Your task to perform on an android device: toggle airplane mode Image 0: 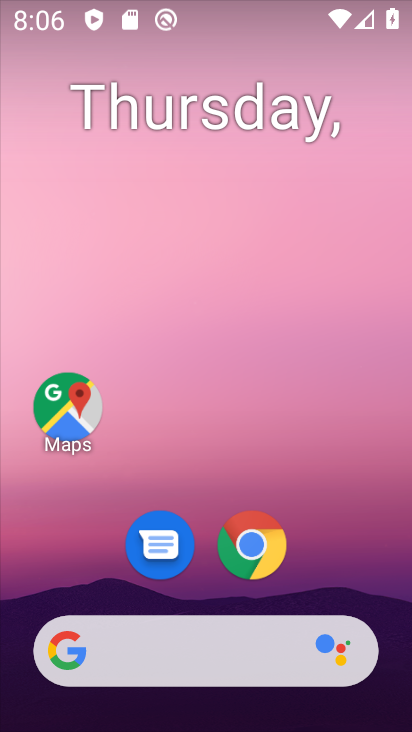
Step 0: drag from (203, 552) to (236, 185)
Your task to perform on an android device: toggle airplane mode Image 1: 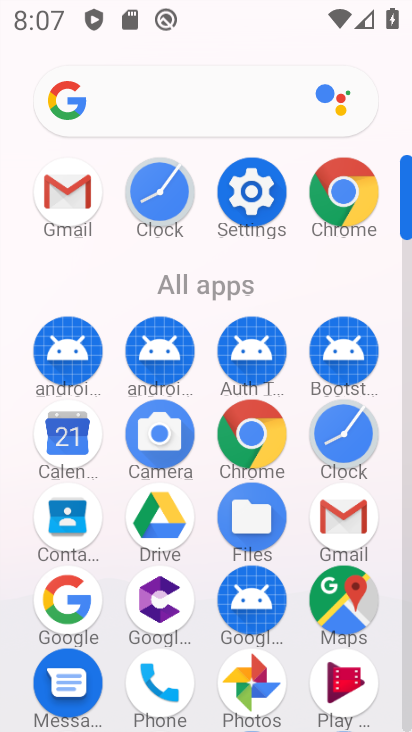
Step 1: click (245, 198)
Your task to perform on an android device: toggle airplane mode Image 2: 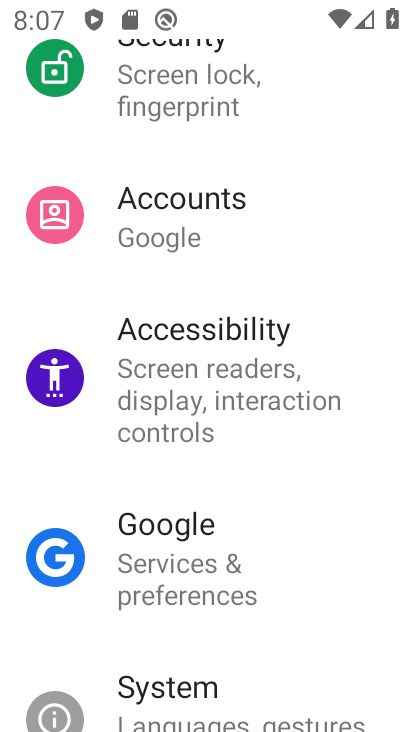
Step 2: drag from (155, 116) to (173, 679)
Your task to perform on an android device: toggle airplane mode Image 3: 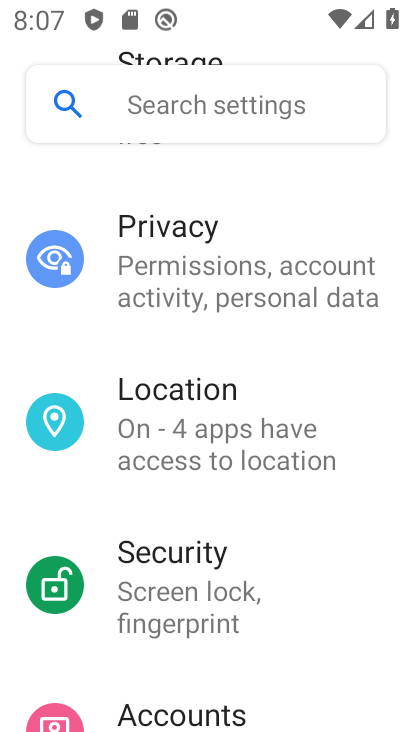
Step 3: drag from (246, 221) to (224, 713)
Your task to perform on an android device: toggle airplane mode Image 4: 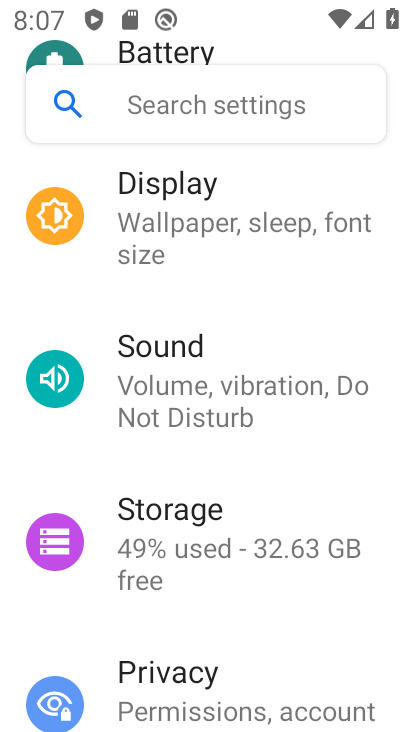
Step 4: drag from (204, 220) to (193, 702)
Your task to perform on an android device: toggle airplane mode Image 5: 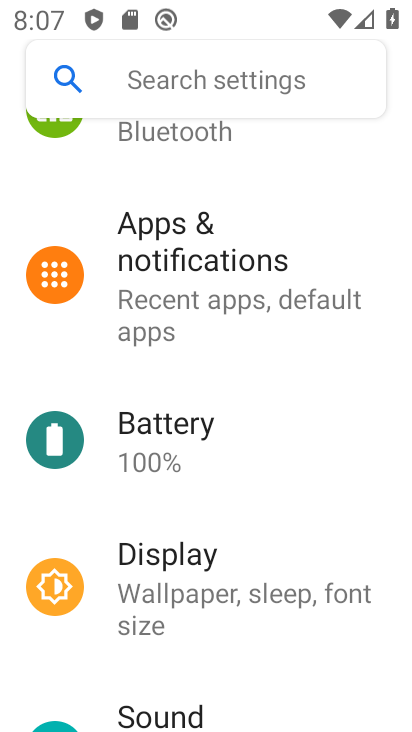
Step 5: drag from (233, 220) to (211, 424)
Your task to perform on an android device: toggle airplane mode Image 6: 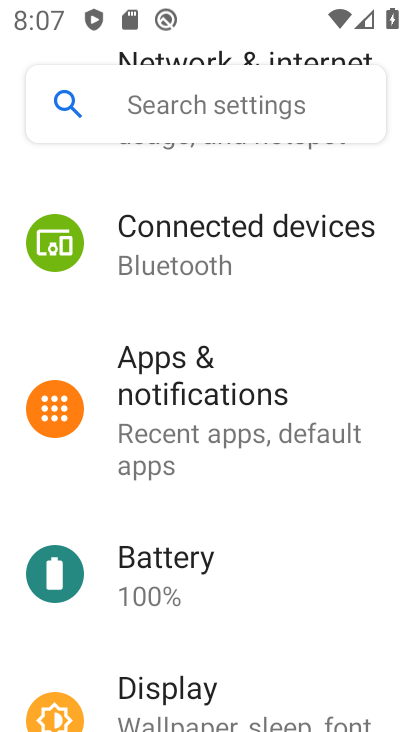
Step 6: drag from (211, 435) to (220, 620)
Your task to perform on an android device: toggle airplane mode Image 7: 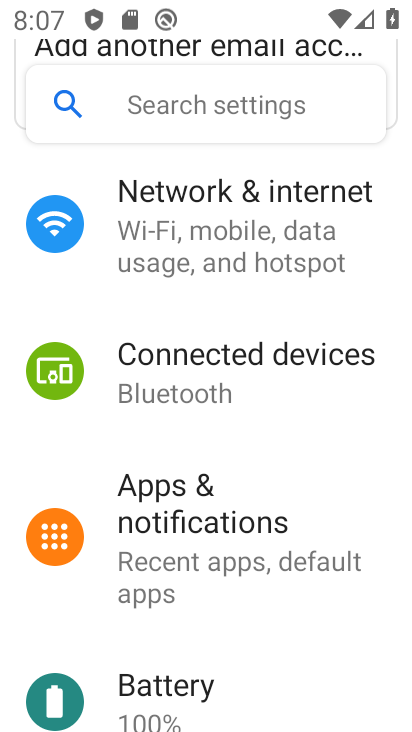
Step 7: click (151, 185)
Your task to perform on an android device: toggle airplane mode Image 8: 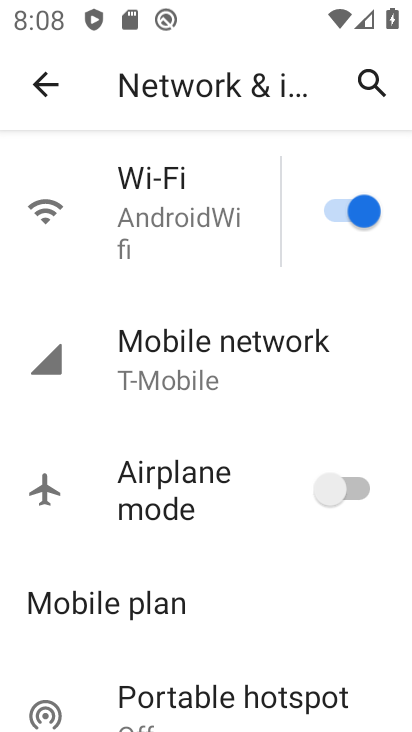
Step 8: click (370, 486)
Your task to perform on an android device: toggle airplane mode Image 9: 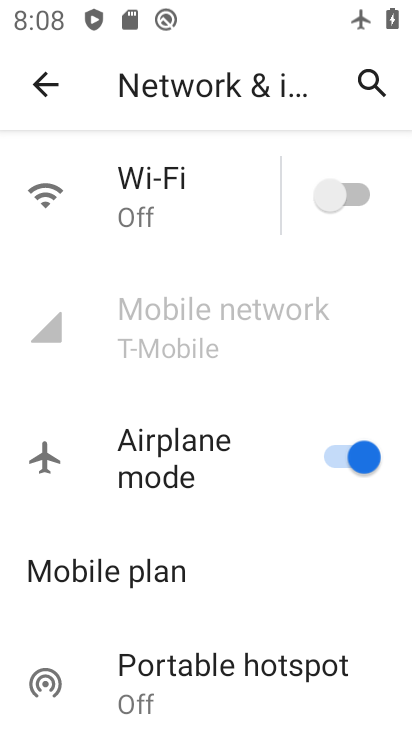
Step 9: task complete